Your task to perform on an android device: Open privacy settings Image 0: 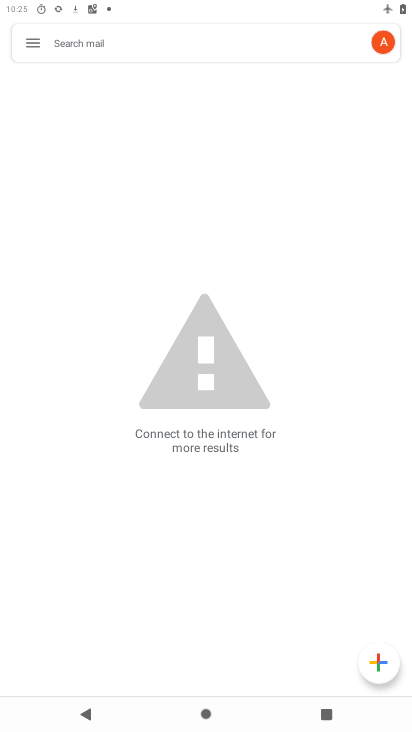
Step 0: press home button
Your task to perform on an android device: Open privacy settings Image 1: 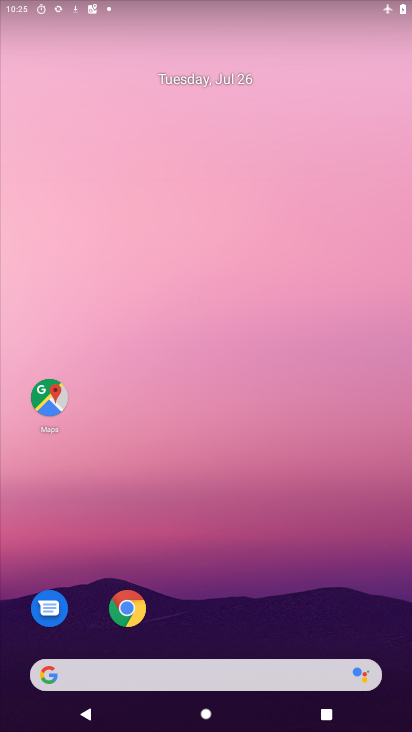
Step 1: drag from (249, 535) to (261, 134)
Your task to perform on an android device: Open privacy settings Image 2: 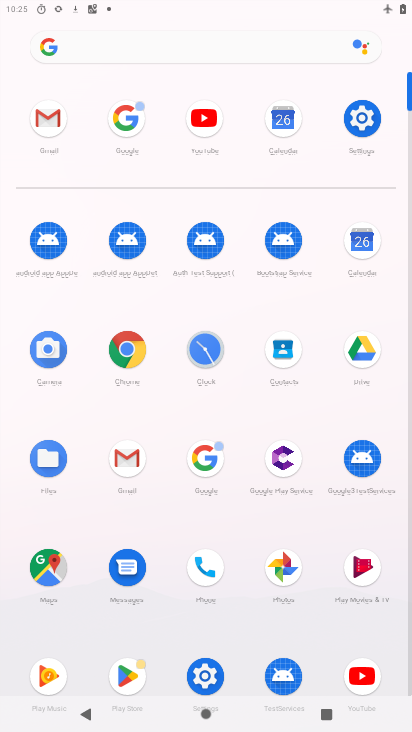
Step 2: click (351, 130)
Your task to perform on an android device: Open privacy settings Image 3: 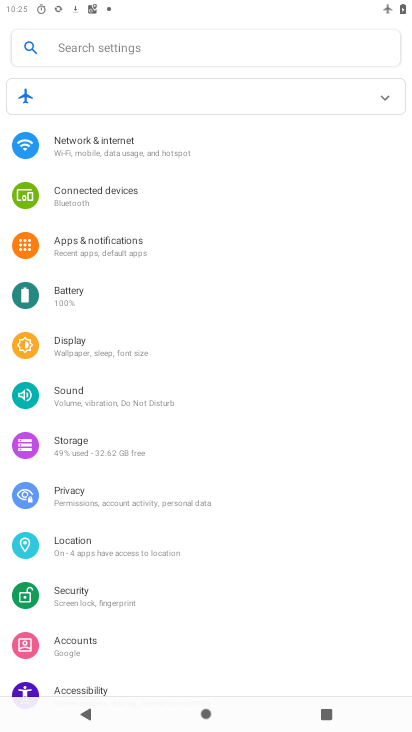
Step 3: click (140, 508)
Your task to perform on an android device: Open privacy settings Image 4: 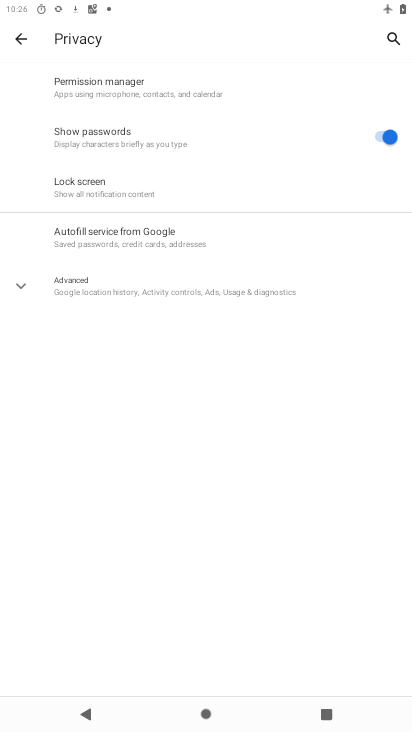
Step 4: task complete